Your task to perform on an android device: Open the Play Movies app and select the watchlist tab. Image 0: 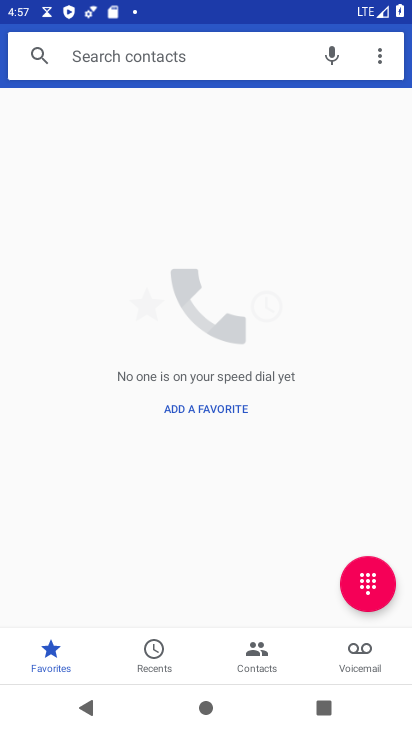
Step 0: press back button
Your task to perform on an android device: Open the Play Movies app and select the watchlist tab. Image 1: 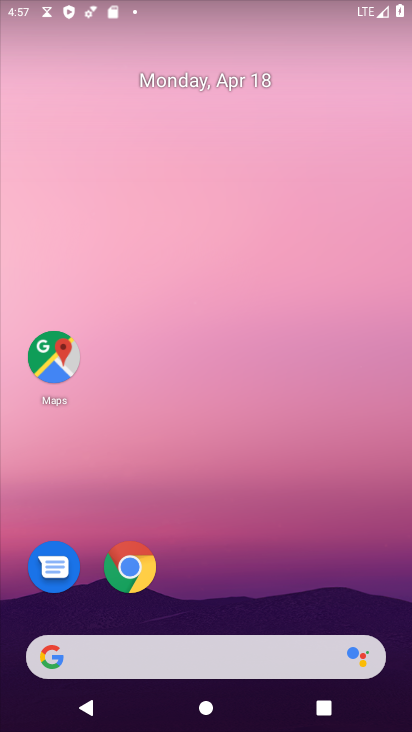
Step 1: drag from (255, 584) to (340, 28)
Your task to perform on an android device: Open the Play Movies app and select the watchlist tab. Image 2: 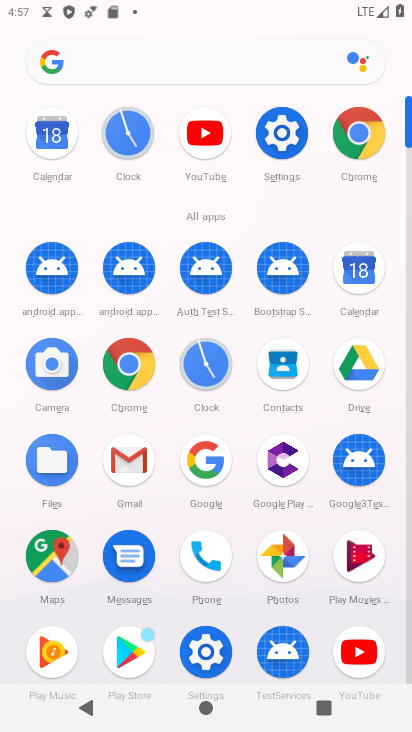
Step 2: click (344, 557)
Your task to perform on an android device: Open the Play Movies app and select the watchlist tab. Image 3: 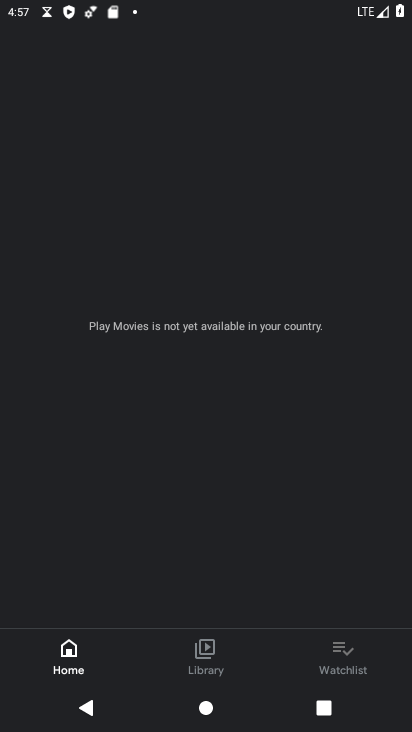
Step 3: click (337, 642)
Your task to perform on an android device: Open the Play Movies app and select the watchlist tab. Image 4: 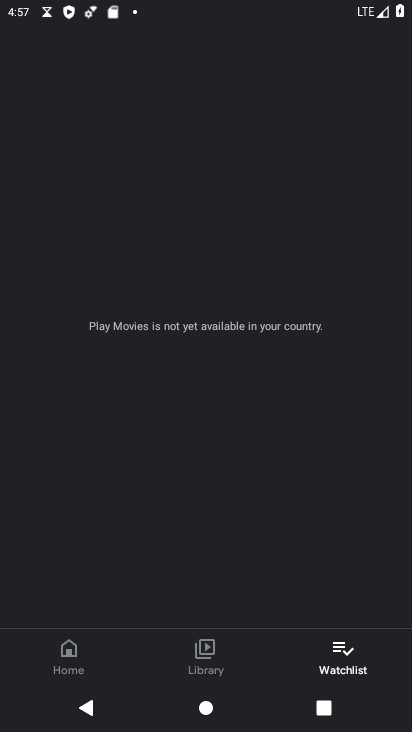
Step 4: task complete